Your task to perform on an android device: Go to notification settings Image 0: 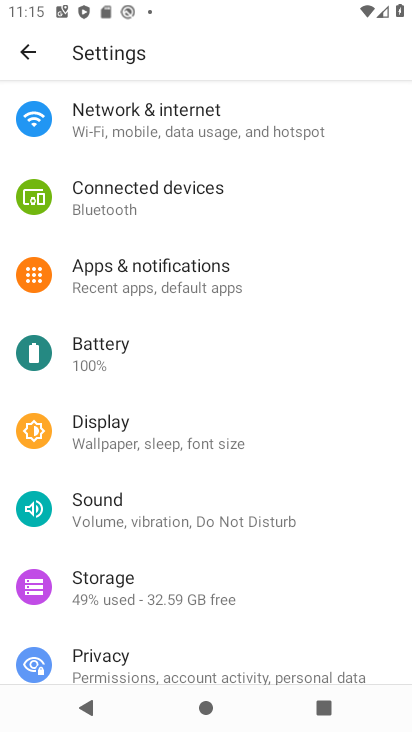
Step 0: click (153, 268)
Your task to perform on an android device: Go to notification settings Image 1: 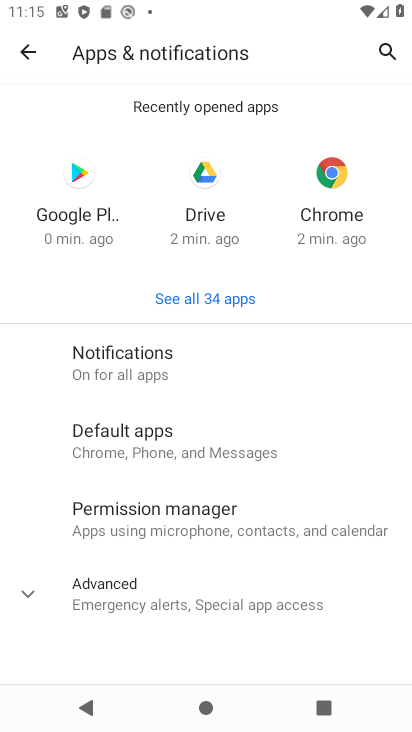
Step 1: click (118, 367)
Your task to perform on an android device: Go to notification settings Image 2: 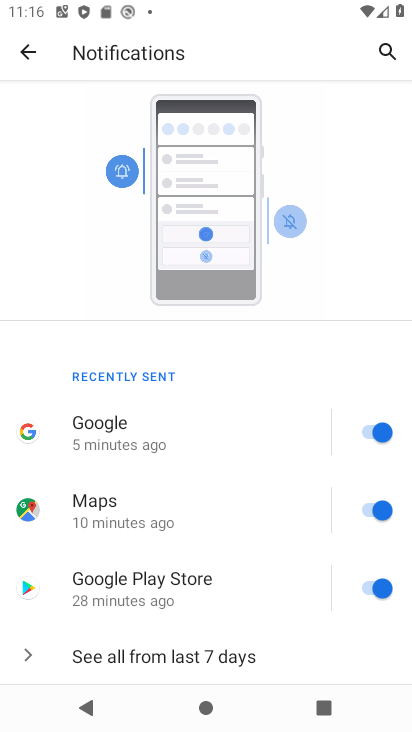
Step 2: drag from (321, 654) to (323, 185)
Your task to perform on an android device: Go to notification settings Image 3: 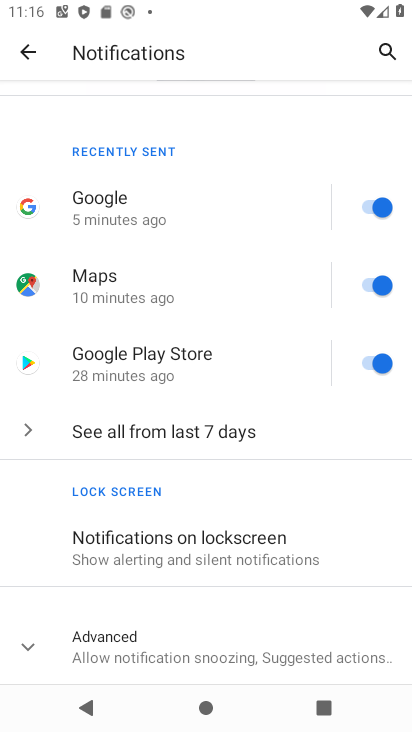
Step 3: click (27, 651)
Your task to perform on an android device: Go to notification settings Image 4: 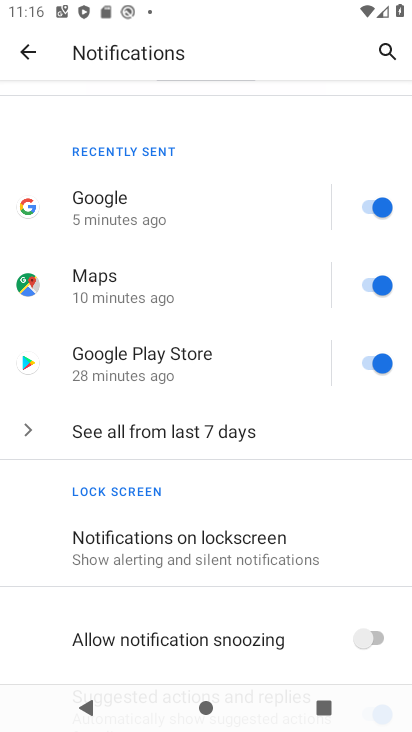
Step 4: task complete